Your task to perform on an android device: Show me popular videos on Youtube Image 0: 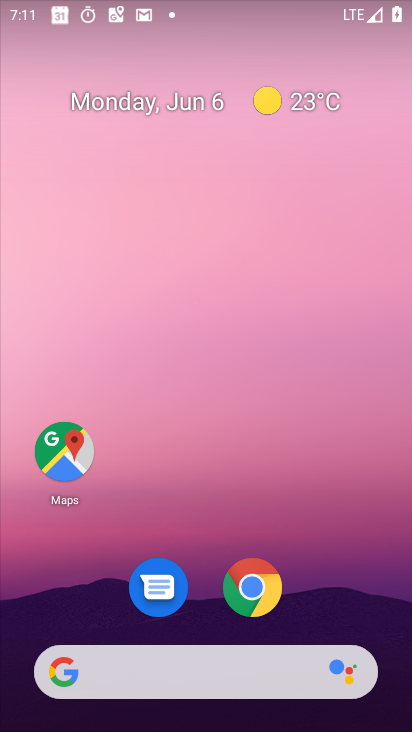
Step 0: drag from (383, 659) to (328, 48)
Your task to perform on an android device: Show me popular videos on Youtube Image 1: 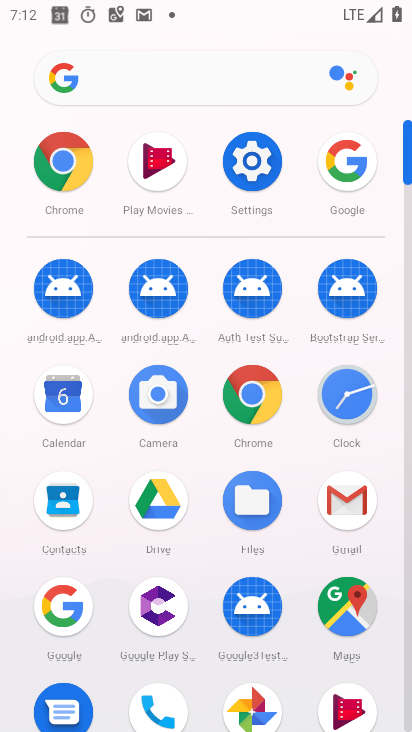
Step 1: drag from (291, 659) to (291, 151)
Your task to perform on an android device: Show me popular videos on Youtube Image 2: 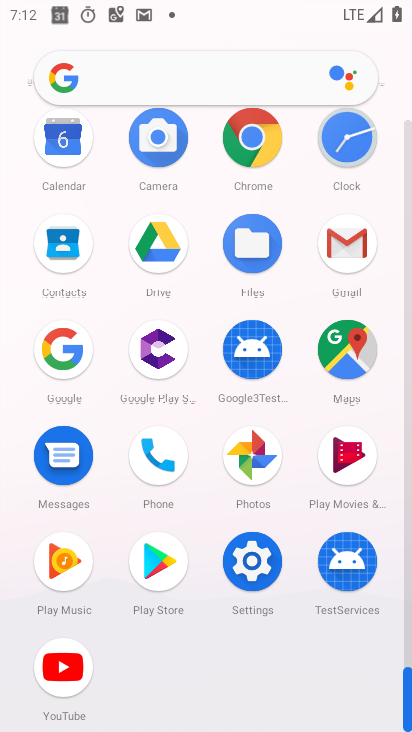
Step 2: click (68, 668)
Your task to perform on an android device: Show me popular videos on Youtube Image 3: 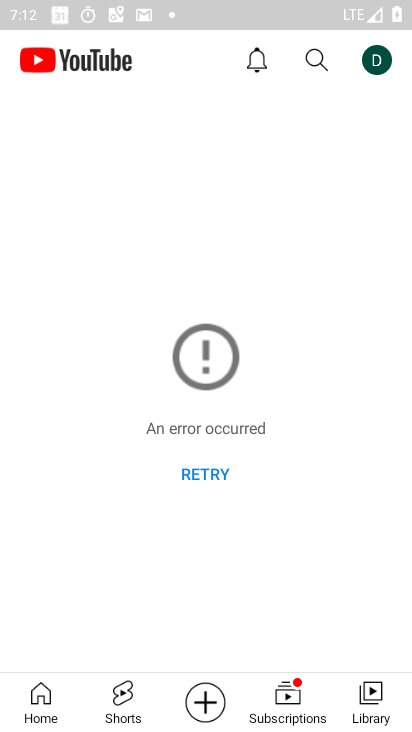
Step 3: task complete